Your task to perform on an android device: Search for "usb-a to usb-b" on target.com, select the first entry, and add it to the cart. Image 0: 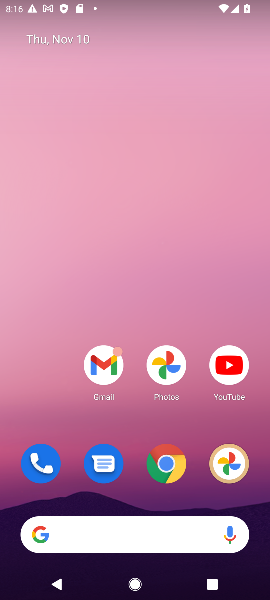
Step 0: click (171, 461)
Your task to perform on an android device: Search for "usb-a to usb-b" on target.com, select the first entry, and add it to the cart. Image 1: 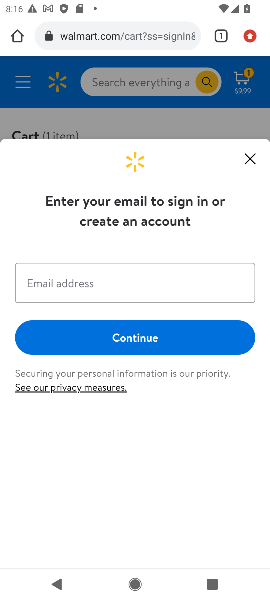
Step 1: click (150, 39)
Your task to perform on an android device: Search for "usb-a to usb-b" on target.com, select the first entry, and add it to the cart. Image 2: 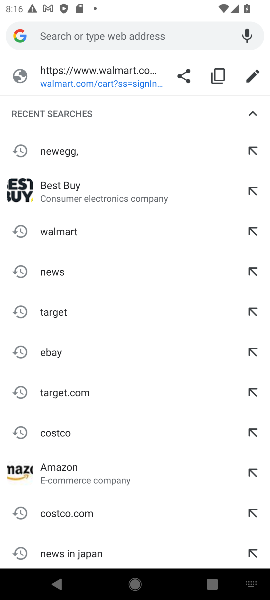
Step 2: click (61, 311)
Your task to perform on an android device: Search for "usb-a to usb-b" on target.com, select the first entry, and add it to the cart. Image 3: 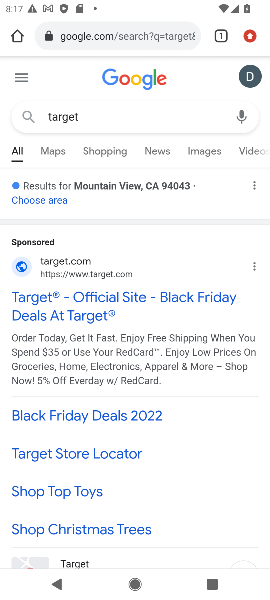
Step 3: click (82, 293)
Your task to perform on an android device: Search for "usb-a to usb-b" on target.com, select the first entry, and add it to the cart. Image 4: 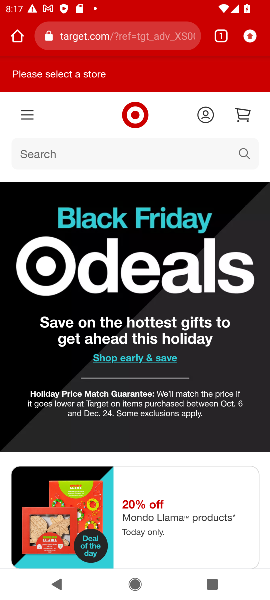
Step 4: click (65, 151)
Your task to perform on an android device: Search for "usb-a to usb-b" on target.com, select the first entry, and add it to the cart. Image 5: 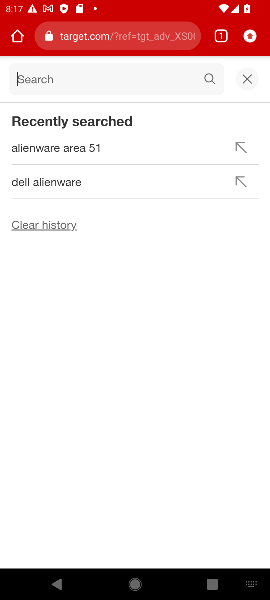
Step 5: type "usb-a to usb-b"
Your task to perform on an android device: Search for "usb-a to usb-b" on target.com, select the first entry, and add it to the cart. Image 6: 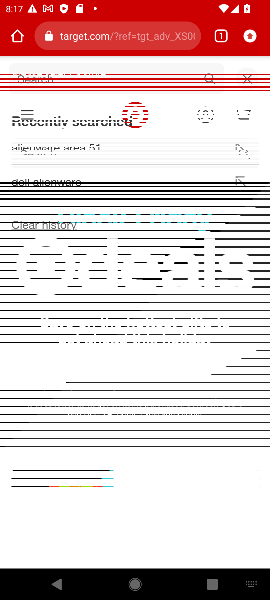
Step 6: press enter
Your task to perform on an android device: Search for "usb-a to usb-b" on target.com, select the first entry, and add it to the cart. Image 7: 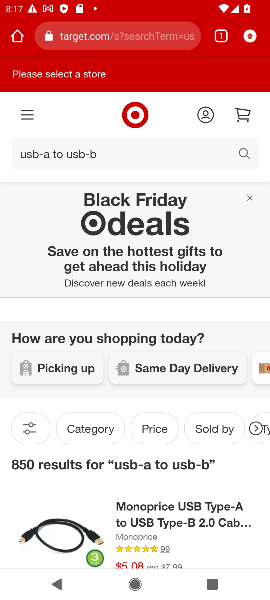
Step 7: drag from (127, 429) to (199, 282)
Your task to perform on an android device: Search for "usb-a to usb-b" on target.com, select the first entry, and add it to the cart. Image 8: 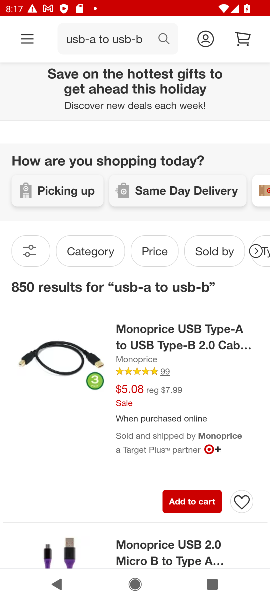
Step 8: click (193, 503)
Your task to perform on an android device: Search for "usb-a to usb-b" on target.com, select the first entry, and add it to the cart. Image 9: 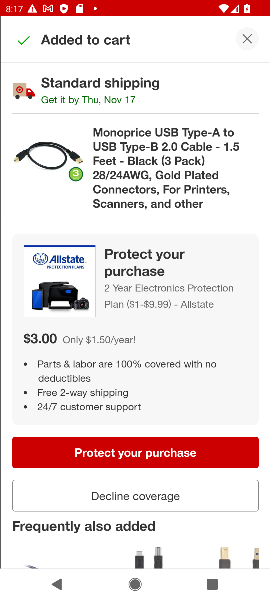
Step 9: click (131, 495)
Your task to perform on an android device: Search for "usb-a to usb-b" on target.com, select the first entry, and add it to the cart. Image 10: 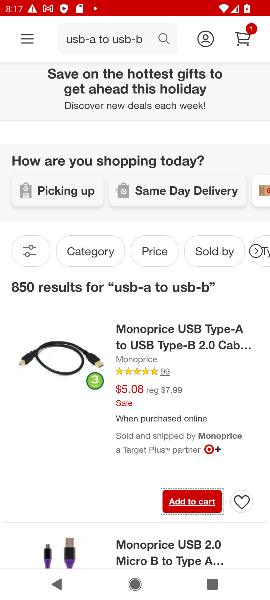
Step 10: click (246, 32)
Your task to perform on an android device: Search for "usb-a to usb-b" on target.com, select the first entry, and add it to the cart. Image 11: 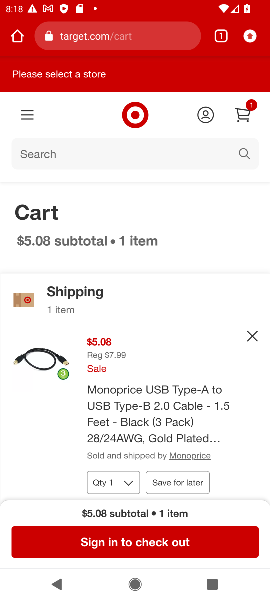
Step 11: task complete